Your task to perform on an android device: Open the stopwatch Image 0: 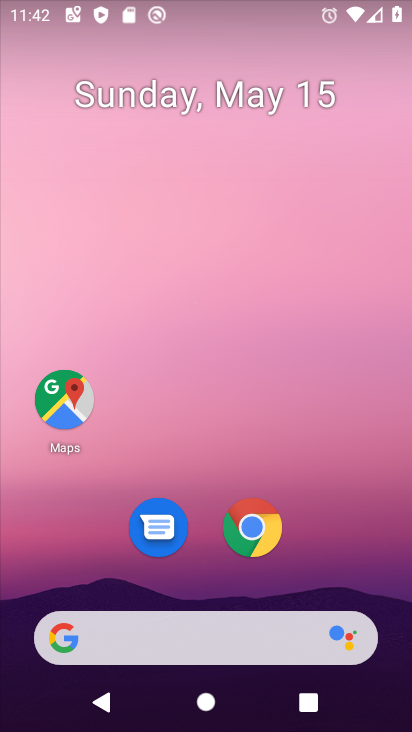
Step 0: drag from (320, 562) to (318, 81)
Your task to perform on an android device: Open the stopwatch Image 1: 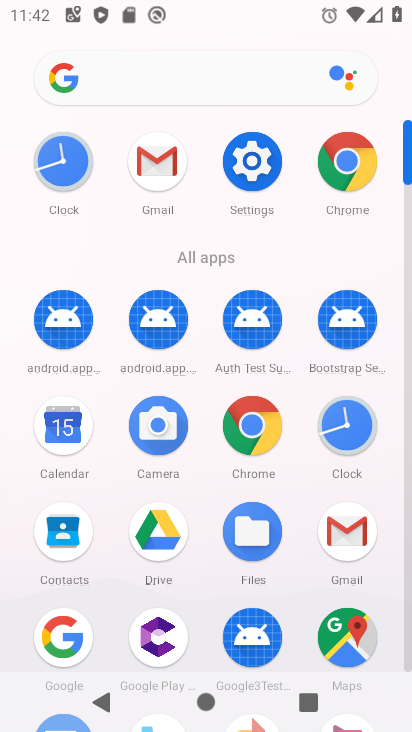
Step 1: click (245, 204)
Your task to perform on an android device: Open the stopwatch Image 2: 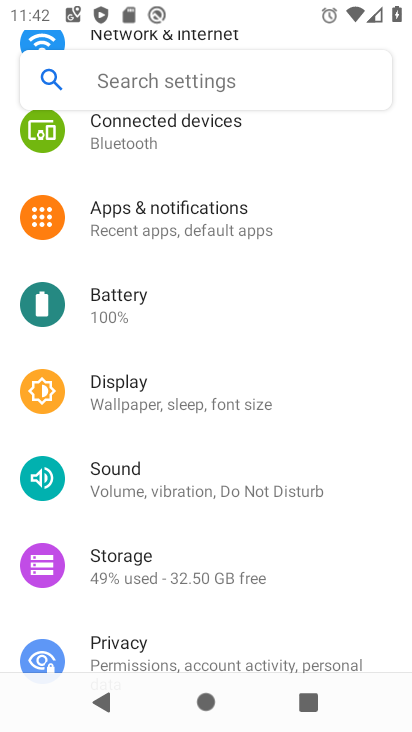
Step 2: drag from (252, 280) to (362, 685)
Your task to perform on an android device: Open the stopwatch Image 3: 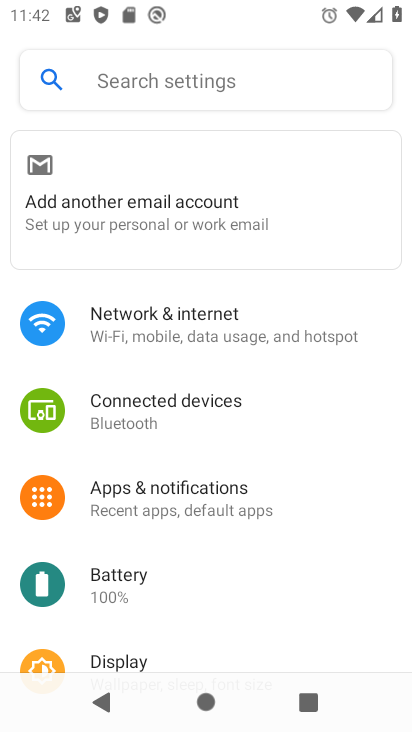
Step 3: drag from (313, 595) to (366, 125)
Your task to perform on an android device: Open the stopwatch Image 4: 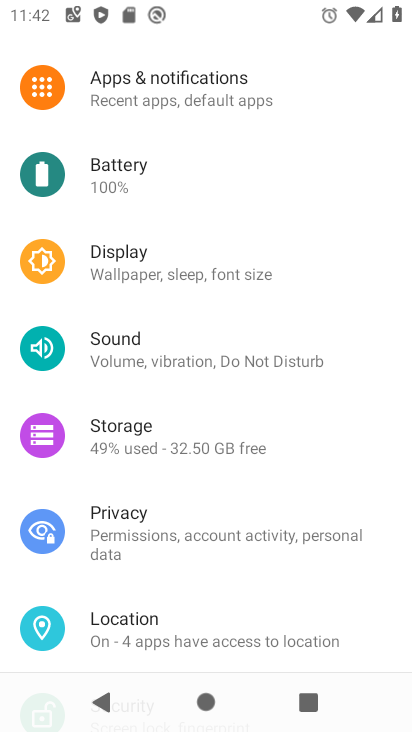
Step 4: drag from (277, 615) to (280, 479)
Your task to perform on an android device: Open the stopwatch Image 5: 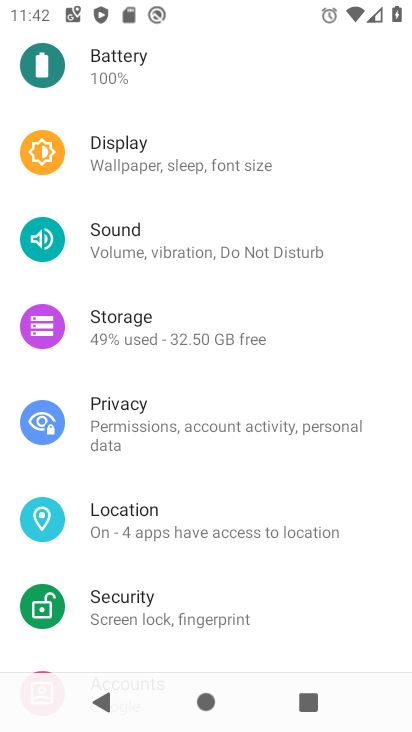
Step 5: press home button
Your task to perform on an android device: Open the stopwatch Image 6: 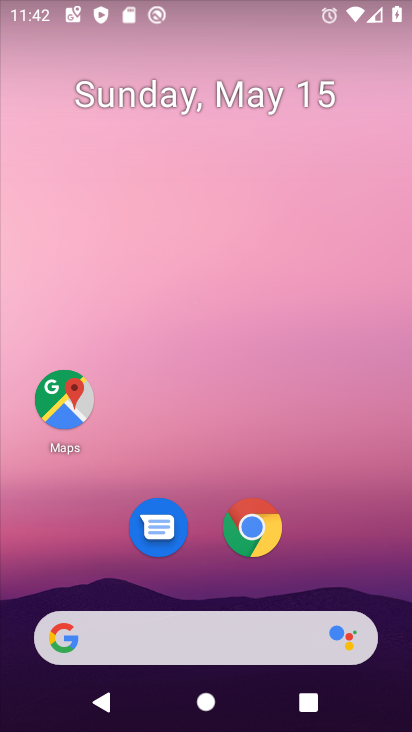
Step 6: drag from (344, 515) to (329, 147)
Your task to perform on an android device: Open the stopwatch Image 7: 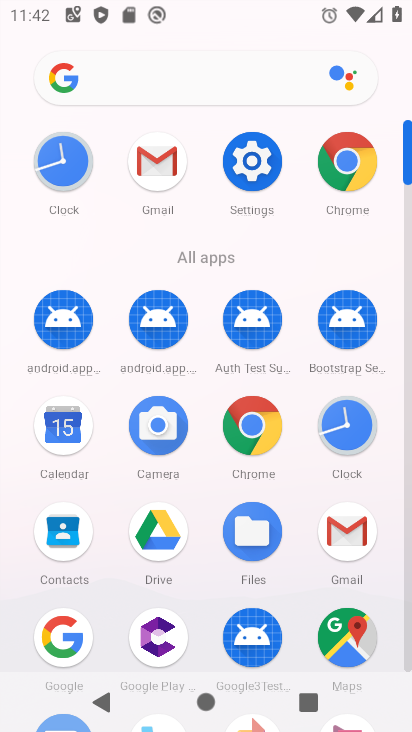
Step 7: click (95, 156)
Your task to perform on an android device: Open the stopwatch Image 8: 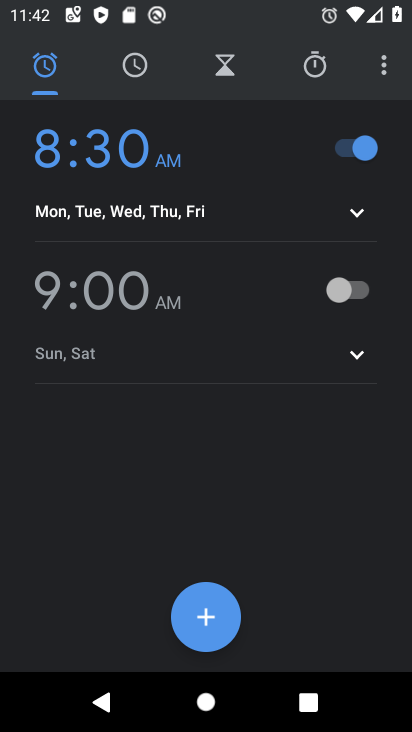
Step 8: click (324, 78)
Your task to perform on an android device: Open the stopwatch Image 9: 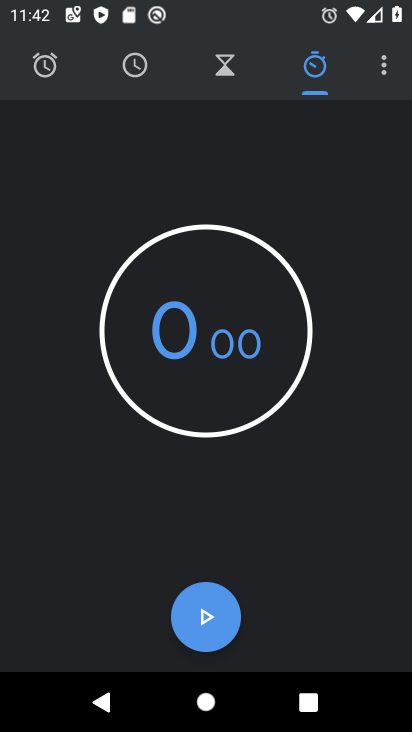
Step 9: task complete